Your task to perform on an android device: delete the emails in spam in the gmail app Image 0: 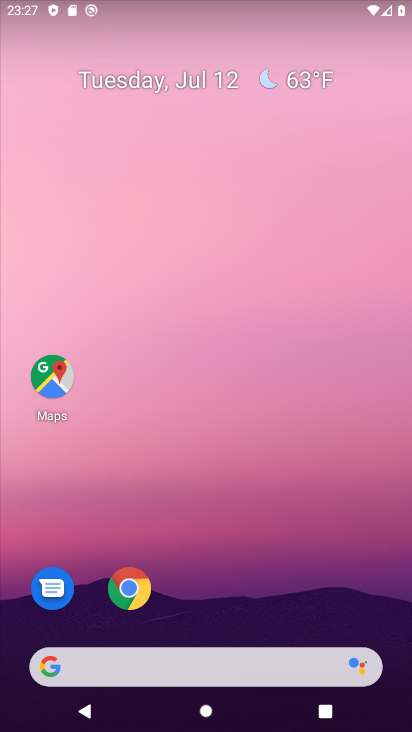
Step 0: drag from (25, 694) to (214, 126)
Your task to perform on an android device: delete the emails in spam in the gmail app Image 1: 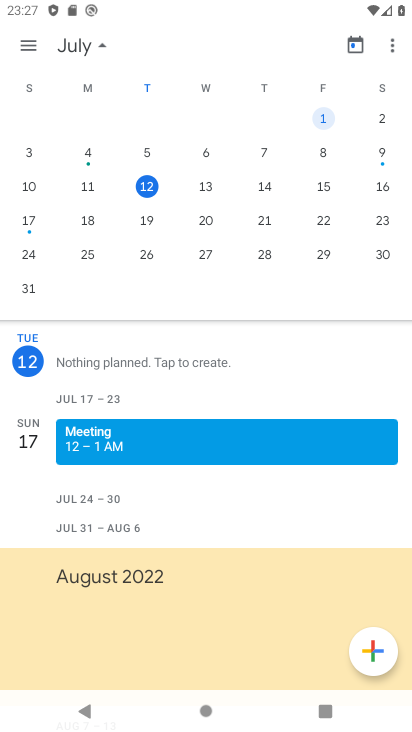
Step 1: press home button
Your task to perform on an android device: delete the emails in spam in the gmail app Image 2: 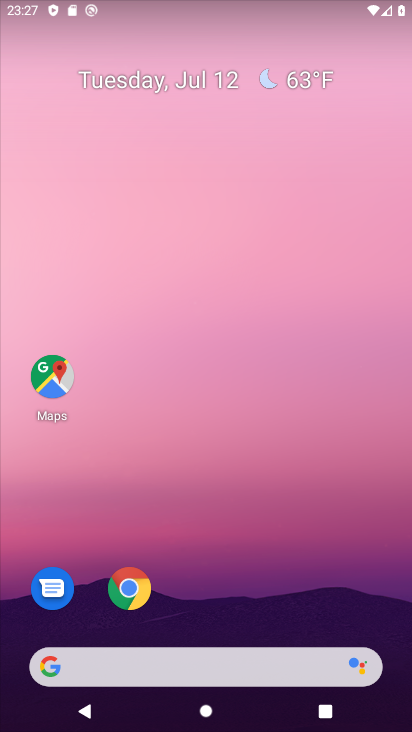
Step 2: drag from (55, 715) to (182, 170)
Your task to perform on an android device: delete the emails in spam in the gmail app Image 3: 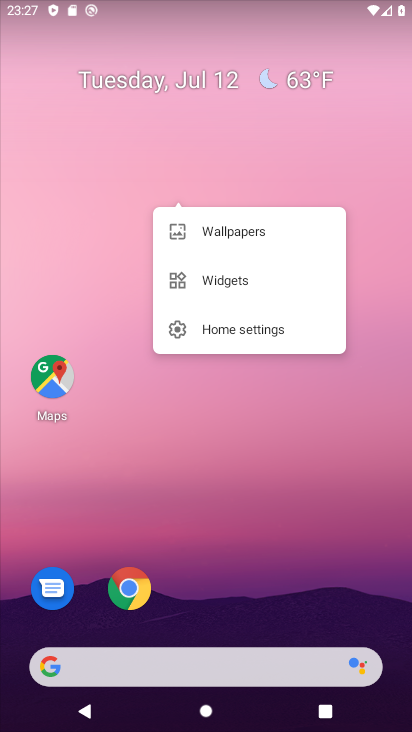
Step 3: drag from (45, 383) to (125, 36)
Your task to perform on an android device: delete the emails in spam in the gmail app Image 4: 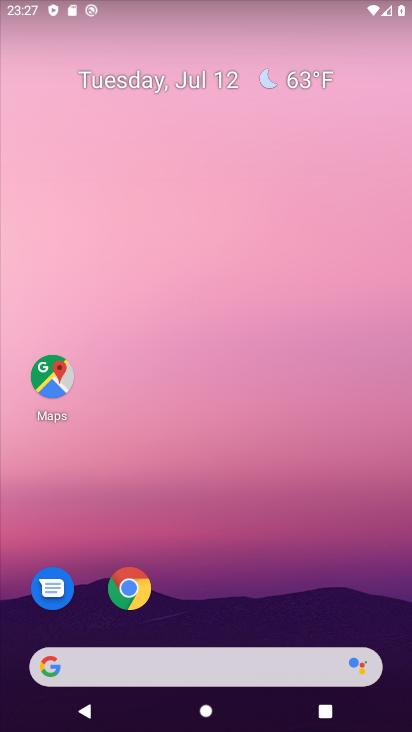
Step 4: click (60, 693)
Your task to perform on an android device: delete the emails in spam in the gmail app Image 5: 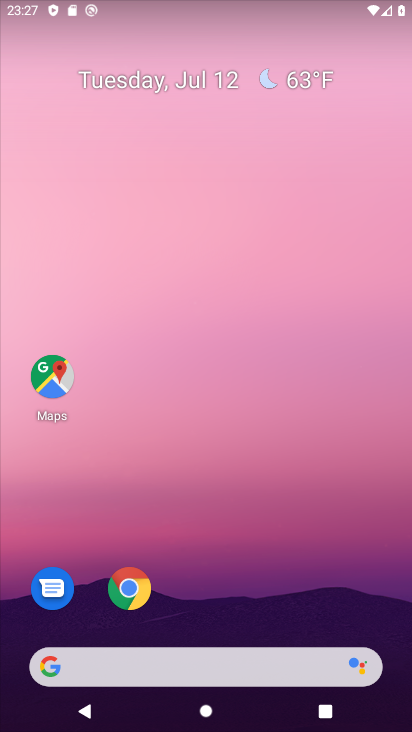
Step 5: task complete